Your task to perform on an android device: Go to notification settings Image 0: 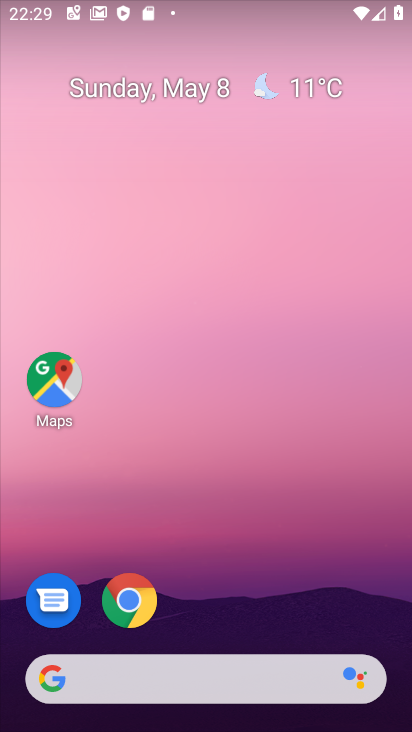
Step 0: drag from (204, 632) to (204, 337)
Your task to perform on an android device: Go to notification settings Image 1: 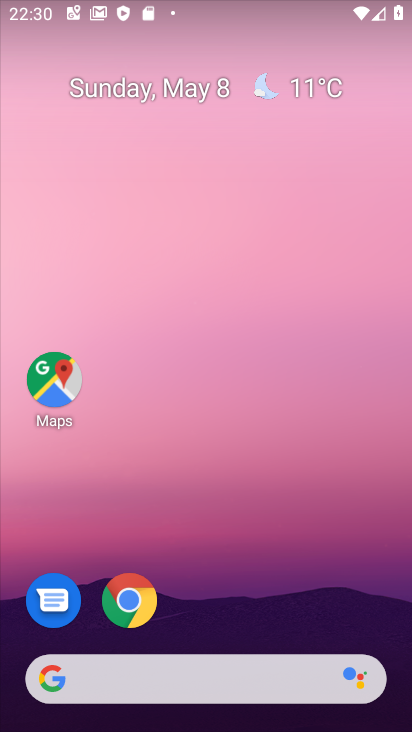
Step 1: drag from (172, 625) to (201, 75)
Your task to perform on an android device: Go to notification settings Image 2: 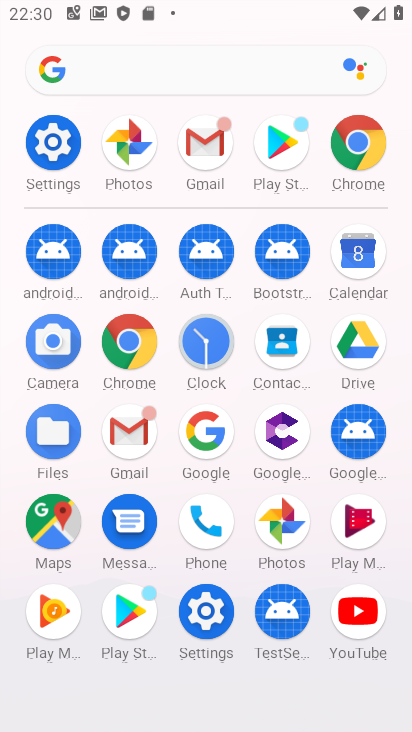
Step 2: click (48, 156)
Your task to perform on an android device: Go to notification settings Image 3: 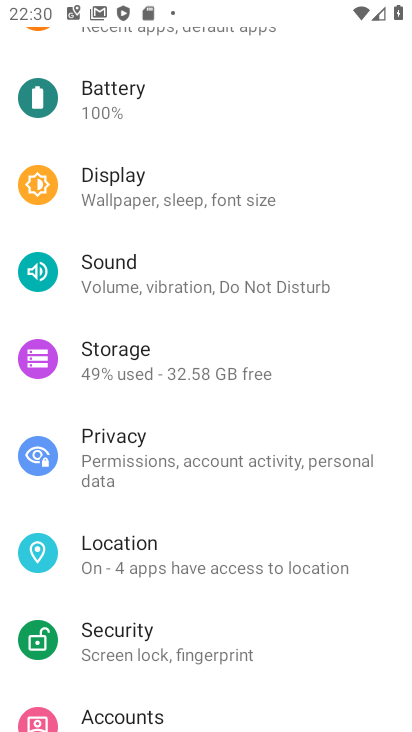
Step 3: drag from (196, 146) to (210, 604)
Your task to perform on an android device: Go to notification settings Image 4: 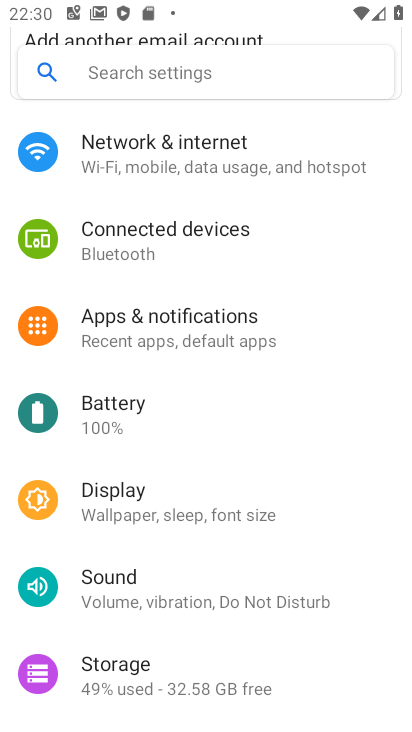
Step 4: click (186, 324)
Your task to perform on an android device: Go to notification settings Image 5: 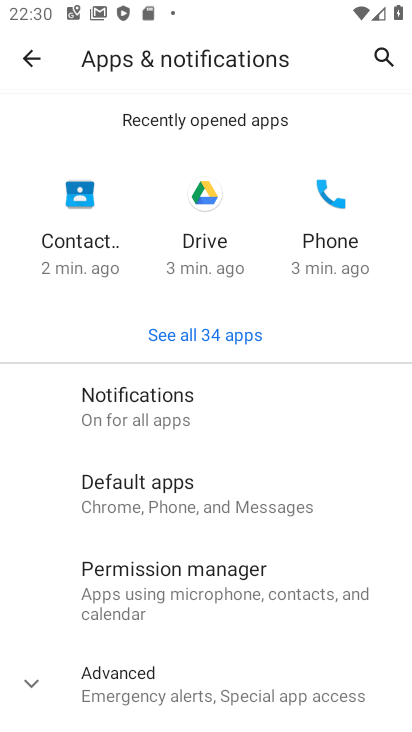
Step 5: click (205, 413)
Your task to perform on an android device: Go to notification settings Image 6: 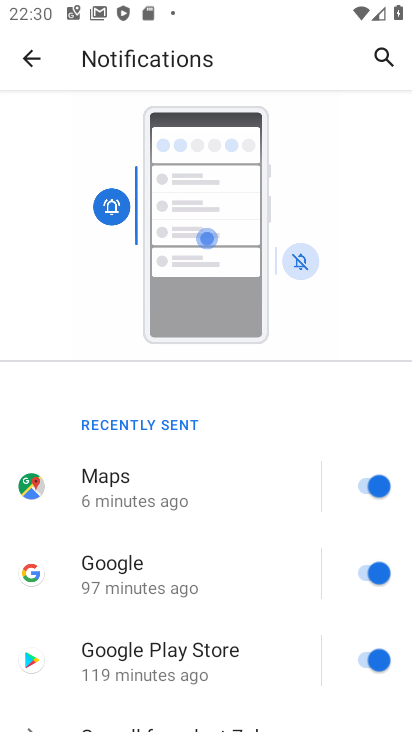
Step 6: drag from (176, 590) to (274, 53)
Your task to perform on an android device: Go to notification settings Image 7: 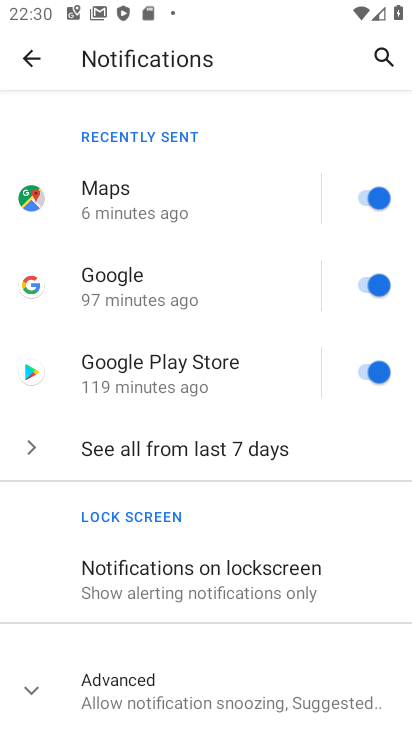
Step 7: click (155, 559)
Your task to perform on an android device: Go to notification settings Image 8: 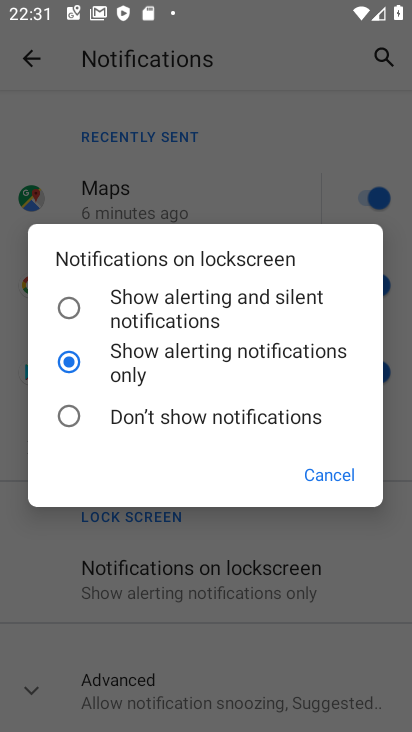
Step 8: task complete